Your task to perform on an android device: Do I have any events tomorrow? Image 0: 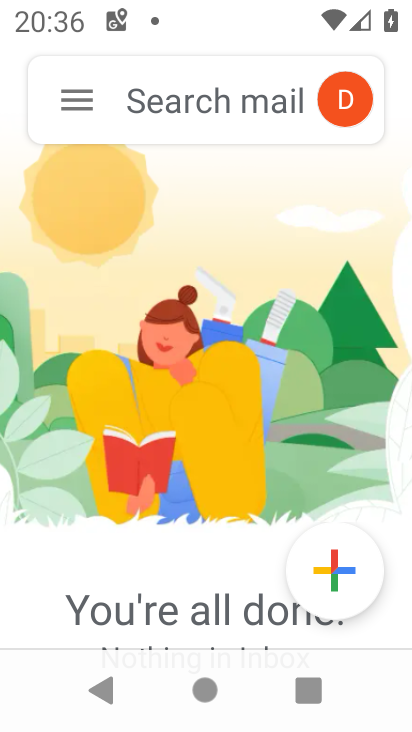
Step 0: press home button
Your task to perform on an android device: Do I have any events tomorrow? Image 1: 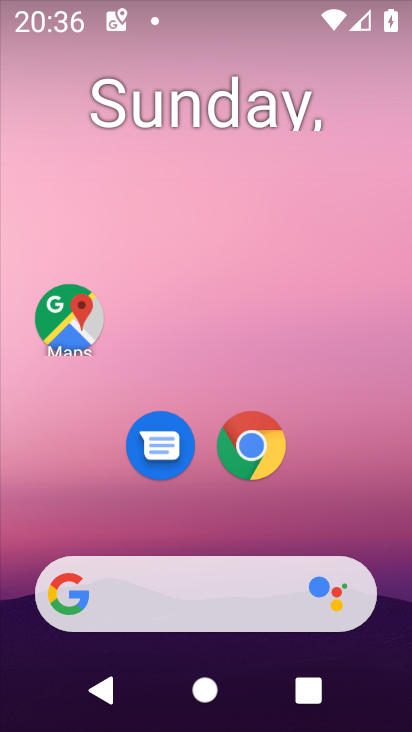
Step 1: drag from (9, 660) to (324, 230)
Your task to perform on an android device: Do I have any events tomorrow? Image 2: 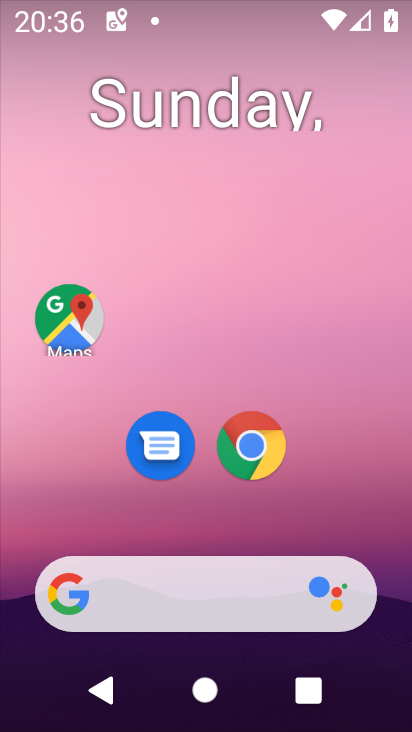
Step 2: drag from (23, 610) to (262, 150)
Your task to perform on an android device: Do I have any events tomorrow? Image 3: 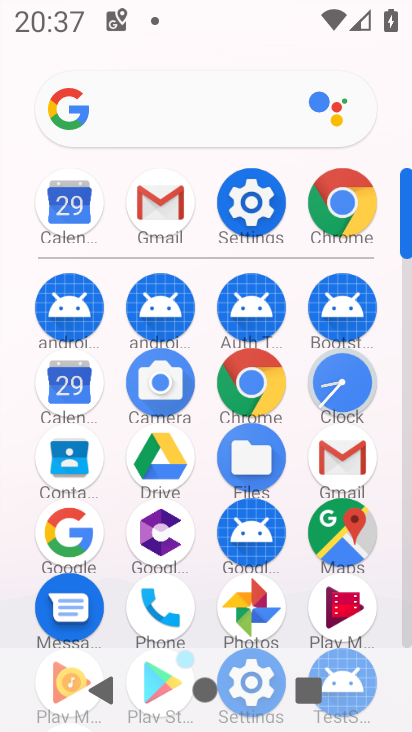
Step 3: click (44, 396)
Your task to perform on an android device: Do I have any events tomorrow? Image 4: 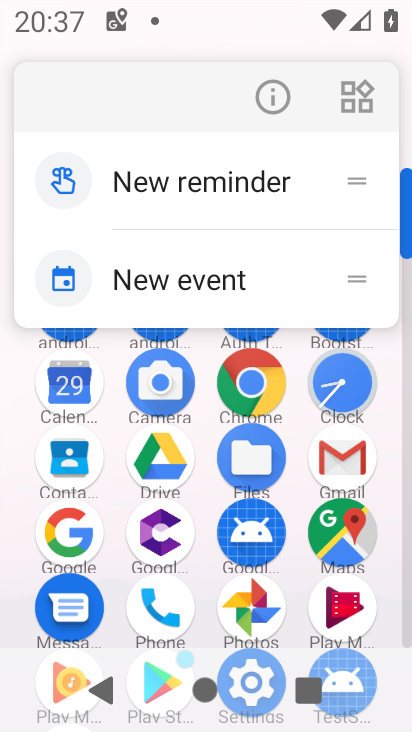
Step 4: click (64, 385)
Your task to perform on an android device: Do I have any events tomorrow? Image 5: 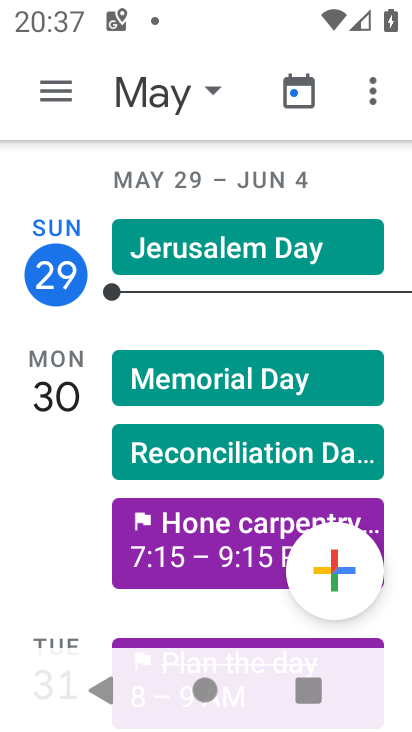
Step 5: click (202, 106)
Your task to perform on an android device: Do I have any events tomorrow? Image 6: 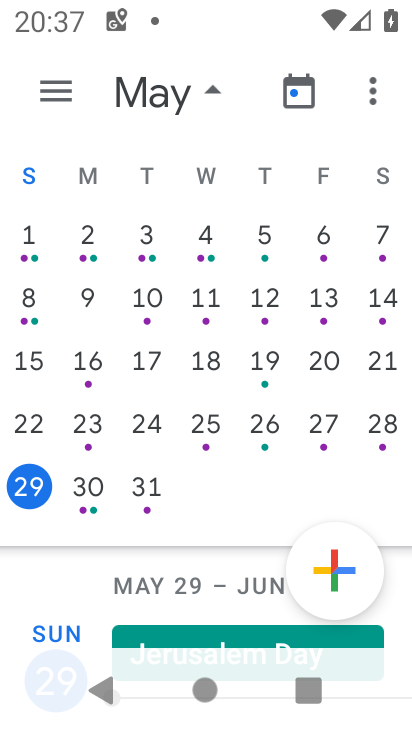
Step 6: click (156, 483)
Your task to perform on an android device: Do I have any events tomorrow? Image 7: 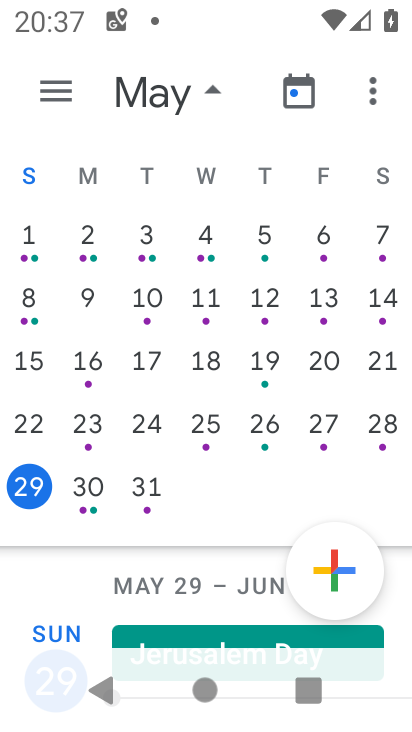
Step 7: click (99, 488)
Your task to perform on an android device: Do I have any events tomorrow? Image 8: 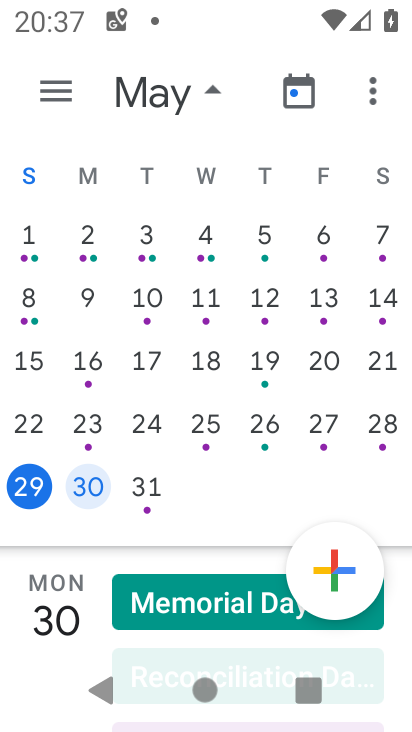
Step 8: task complete